Your task to perform on an android device: Go to ESPN.com Image 0: 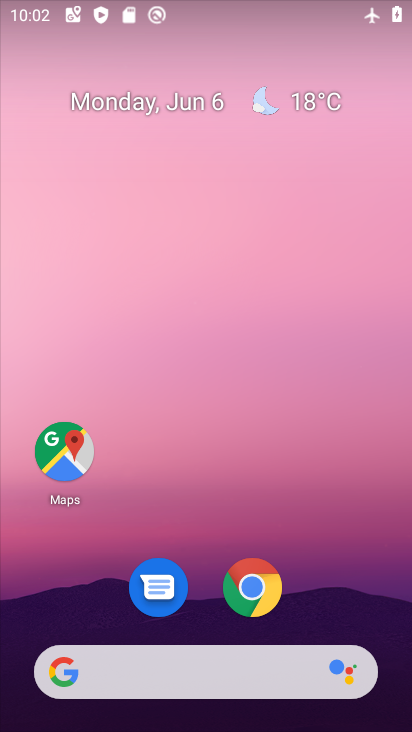
Step 0: click (252, 590)
Your task to perform on an android device: Go to ESPN.com Image 1: 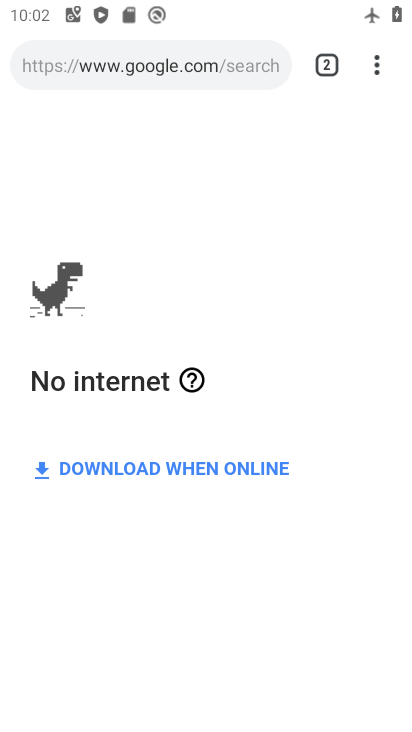
Step 1: click (181, 69)
Your task to perform on an android device: Go to ESPN.com Image 2: 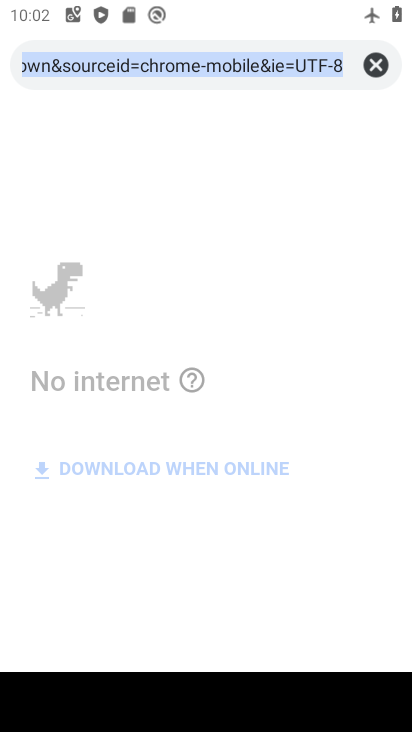
Step 2: type "espn.com"
Your task to perform on an android device: Go to ESPN.com Image 3: 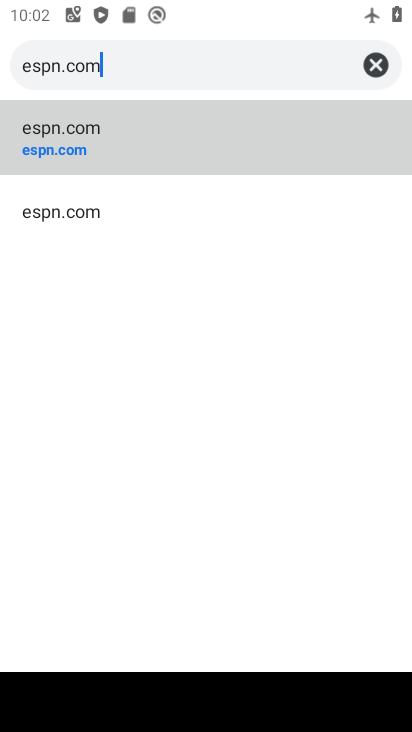
Step 3: click (64, 145)
Your task to perform on an android device: Go to ESPN.com Image 4: 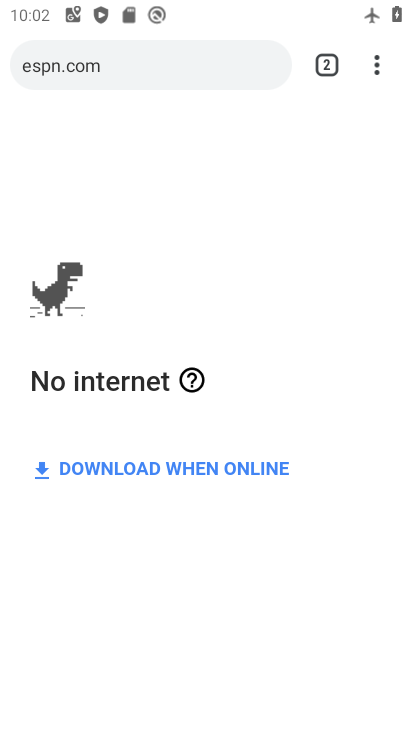
Step 4: task complete